Your task to perform on an android device: Open location settings Image 0: 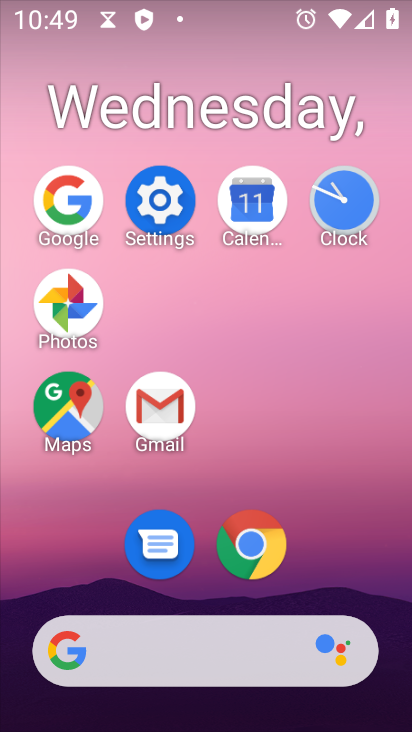
Step 0: click (166, 202)
Your task to perform on an android device: Open location settings Image 1: 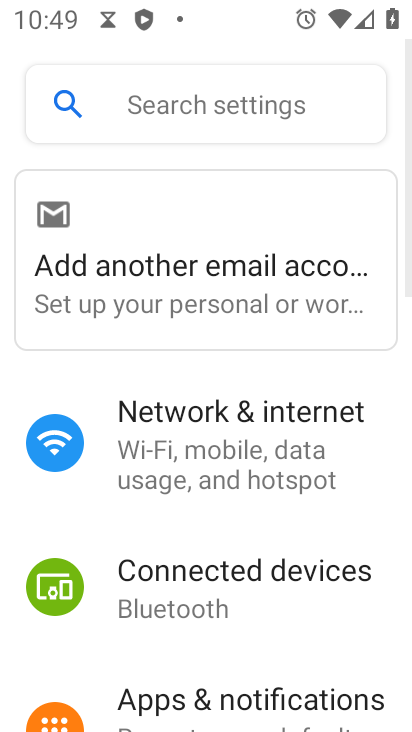
Step 1: drag from (239, 637) to (281, 220)
Your task to perform on an android device: Open location settings Image 2: 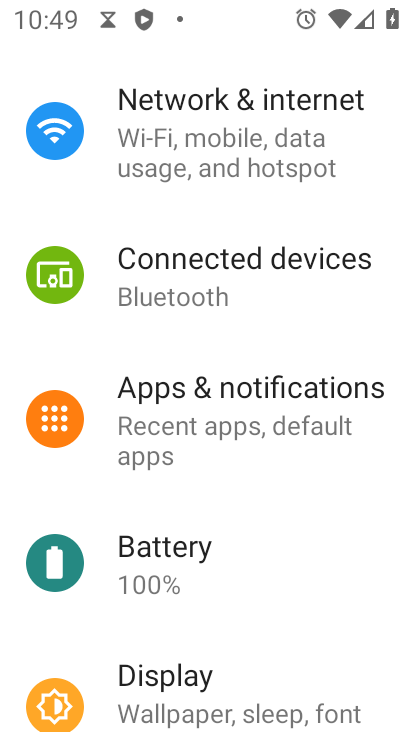
Step 2: drag from (296, 643) to (311, 199)
Your task to perform on an android device: Open location settings Image 3: 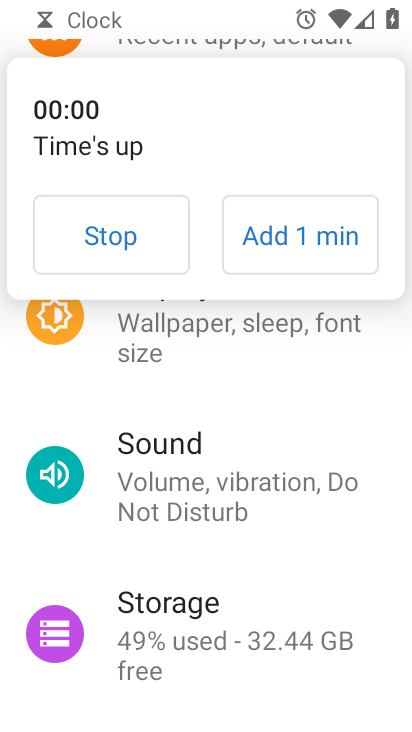
Step 3: drag from (265, 581) to (284, 144)
Your task to perform on an android device: Open location settings Image 4: 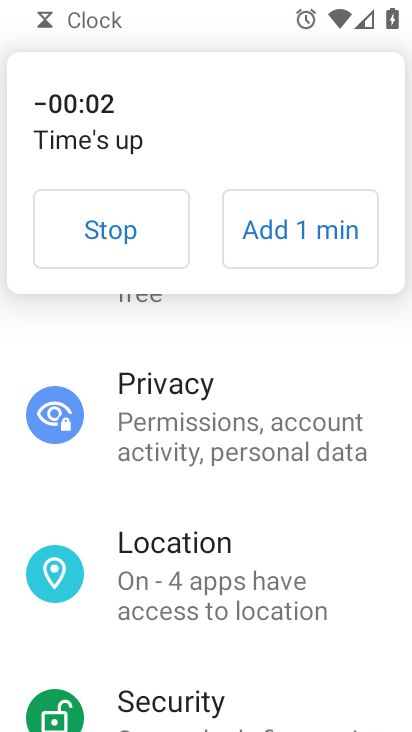
Step 4: click (265, 590)
Your task to perform on an android device: Open location settings Image 5: 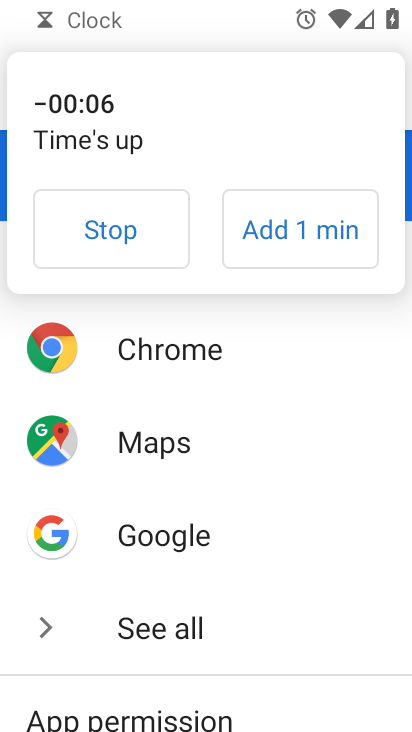
Step 5: click (116, 237)
Your task to perform on an android device: Open location settings Image 6: 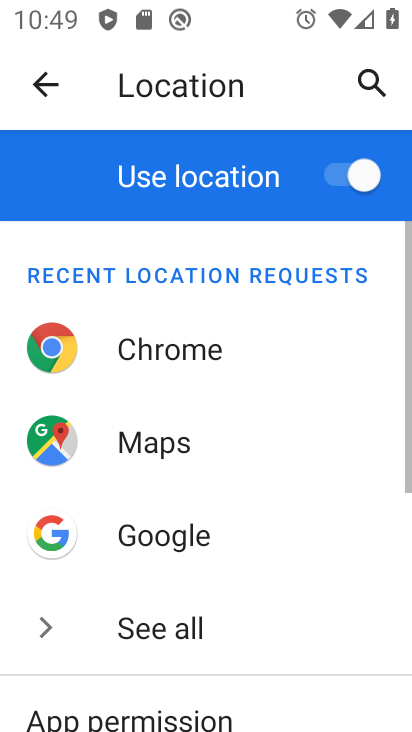
Step 6: task complete